Your task to perform on an android device: Show me popular videos on Youtube Image 0: 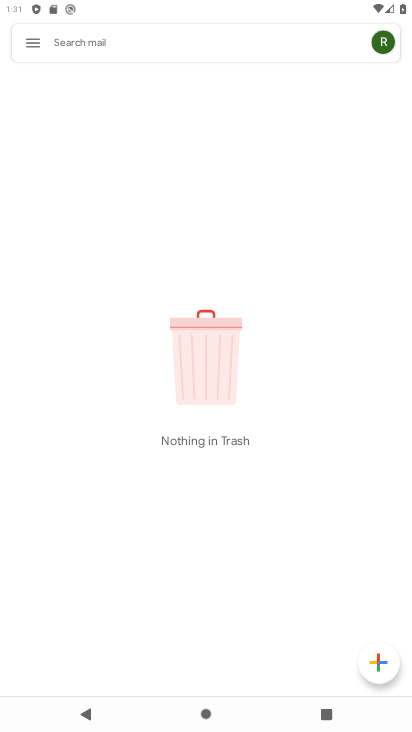
Step 0: drag from (219, 658) to (243, 166)
Your task to perform on an android device: Show me popular videos on Youtube Image 1: 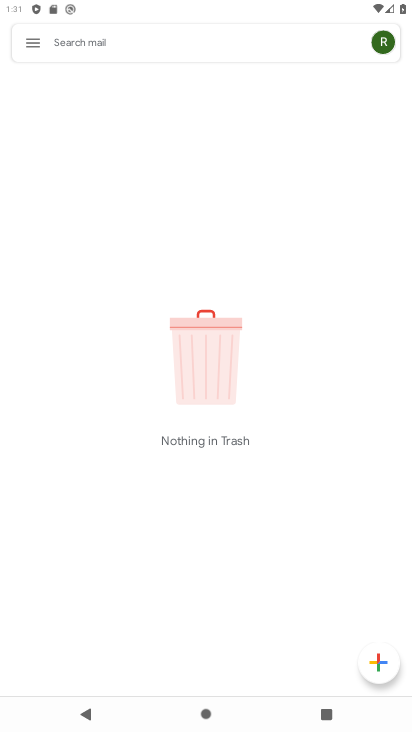
Step 1: press home button
Your task to perform on an android device: Show me popular videos on Youtube Image 2: 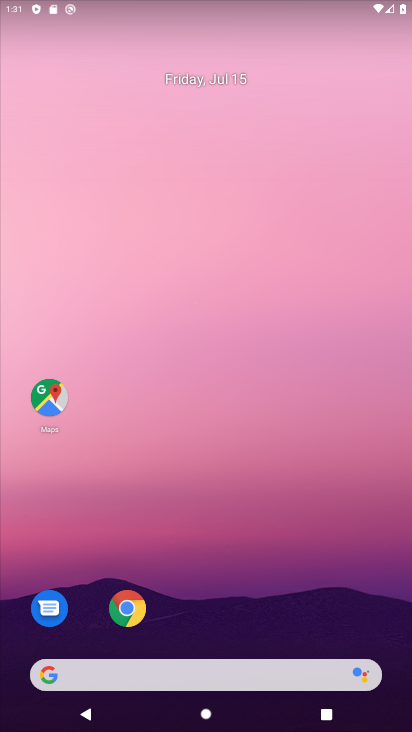
Step 2: drag from (195, 672) to (162, 90)
Your task to perform on an android device: Show me popular videos on Youtube Image 3: 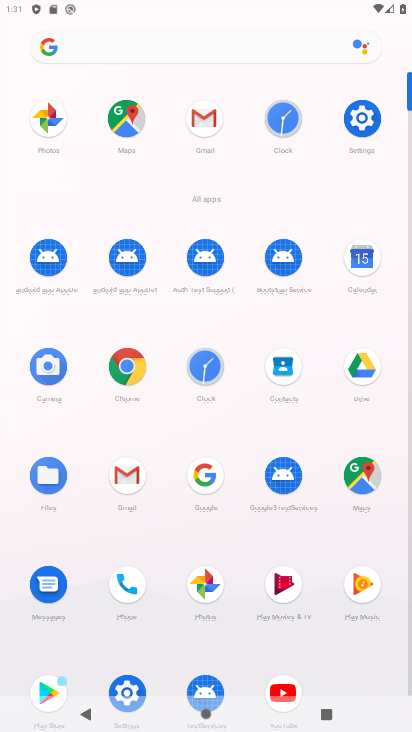
Step 3: click (287, 679)
Your task to perform on an android device: Show me popular videos on Youtube Image 4: 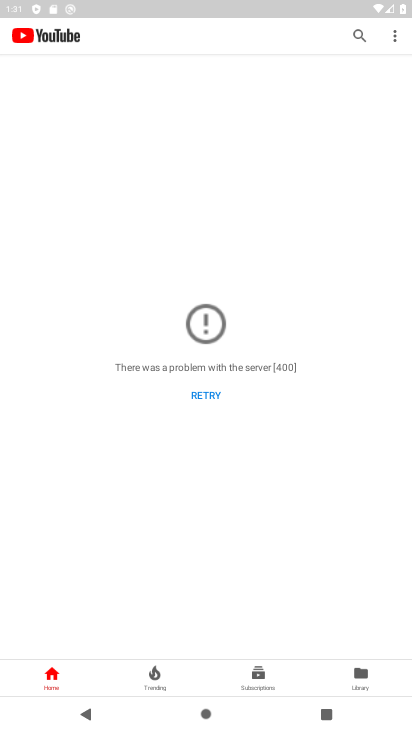
Step 4: click (207, 401)
Your task to perform on an android device: Show me popular videos on Youtube Image 5: 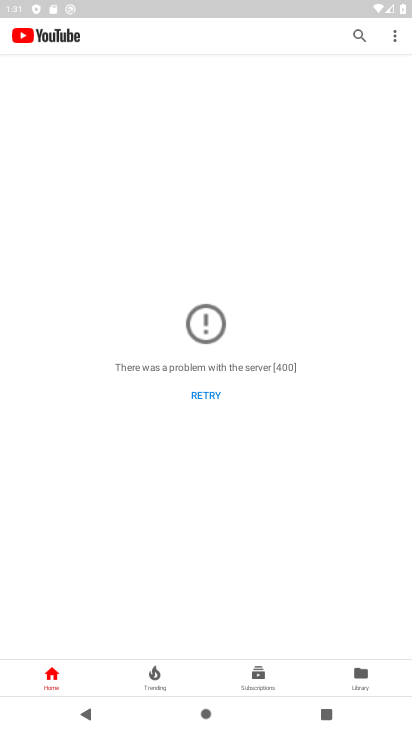
Step 5: task complete